Your task to perform on an android device: toggle airplane mode Image 0: 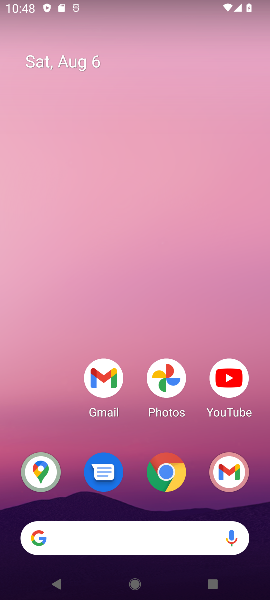
Step 0: click (19, 34)
Your task to perform on an android device: toggle airplane mode Image 1: 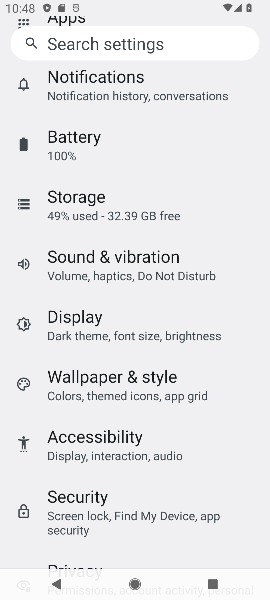
Step 1: press back button
Your task to perform on an android device: toggle airplane mode Image 2: 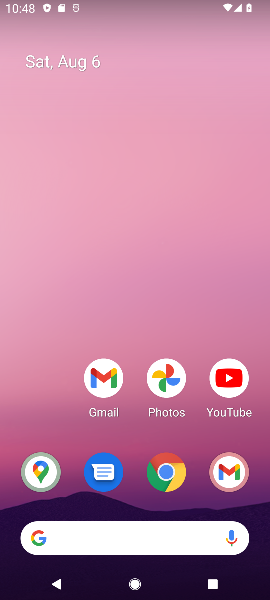
Step 2: drag from (158, 478) to (81, 80)
Your task to perform on an android device: toggle airplane mode Image 3: 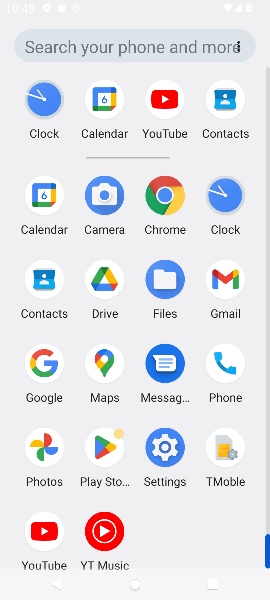
Step 3: drag from (166, 389) to (156, 154)
Your task to perform on an android device: toggle airplane mode Image 4: 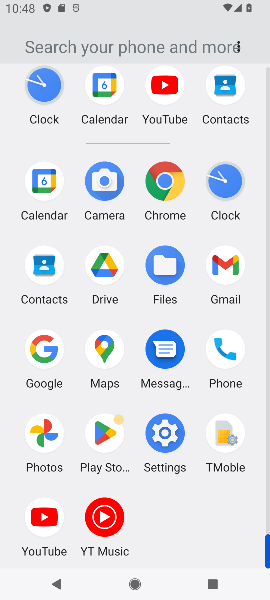
Step 4: click (162, 435)
Your task to perform on an android device: toggle airplane mode Image 5: 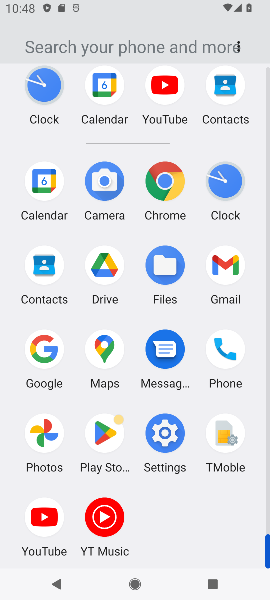
Step 5: click (162, 435)
Your task to perform on an android device: toggle airplane mode Image 6: 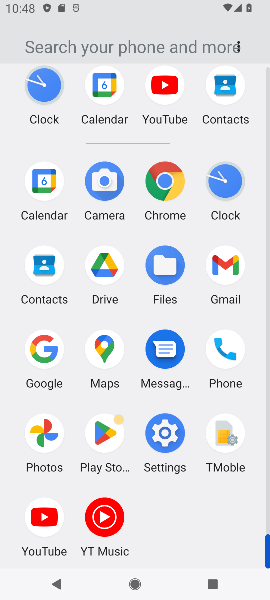
Step 6: click (162, 435)
Your task to perform on an android device: toggle airplane mode Image 7: 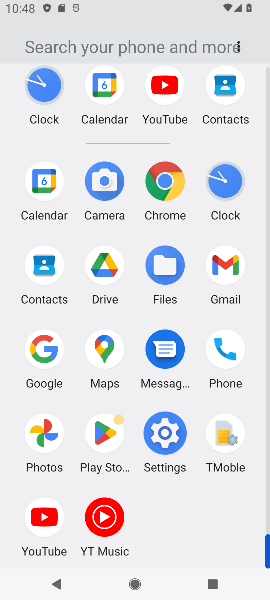
Step 7: click (162, 435)
Your task to perform on an android device: toggle airplane mode Image 8: 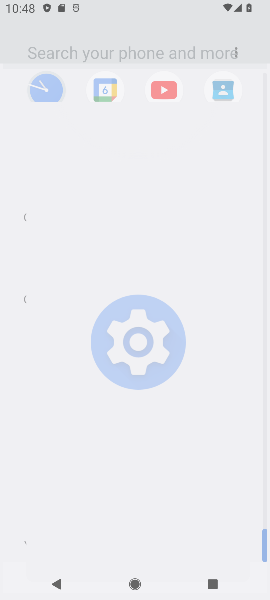
Step 8: click (162, 435)
Your task to perform on an android device: toggle airplane mode Image 9: 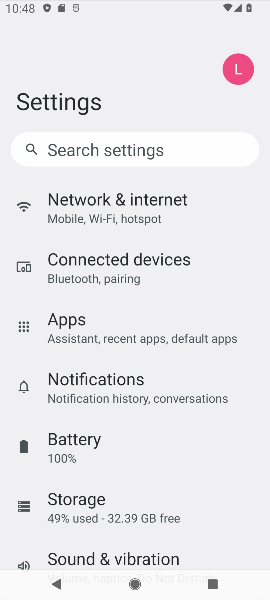
Step 9: click (162, 435)
Your task to perform on an android device: toggle airplane mode Image 10: 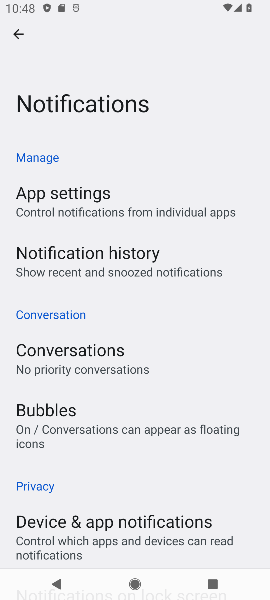
Step 10: click (13, 31)
Your task to perform on an android device: toggle airplane mode Image 11: 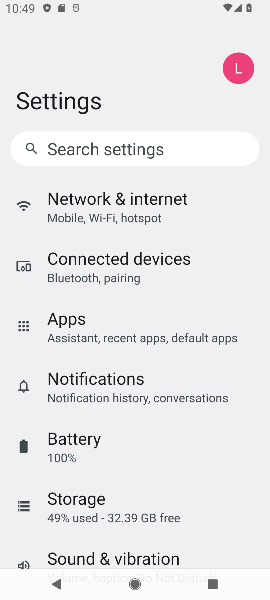
Step 11: click (116, 208)
Your task to perform on an android device: toggle airplane mode Image 12: 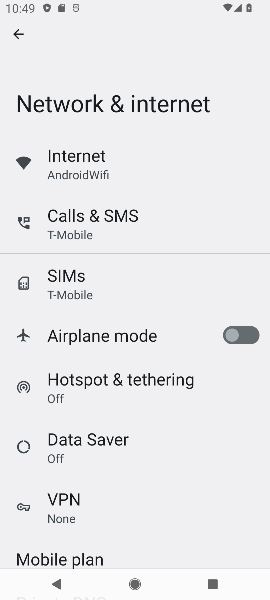
Step 12: click (229, 321)
Your task to perform on an android device: toggle airplane mode Image 13: 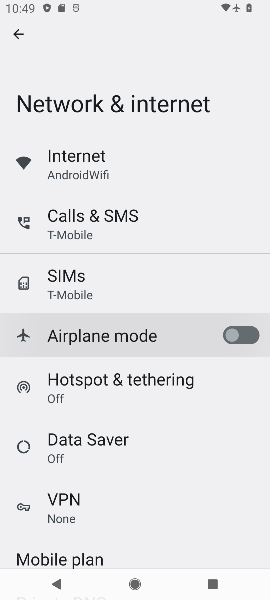
Step 13: task complete